Your task to perform on an android device: Open calendar and show me the third week of next month Image 0: 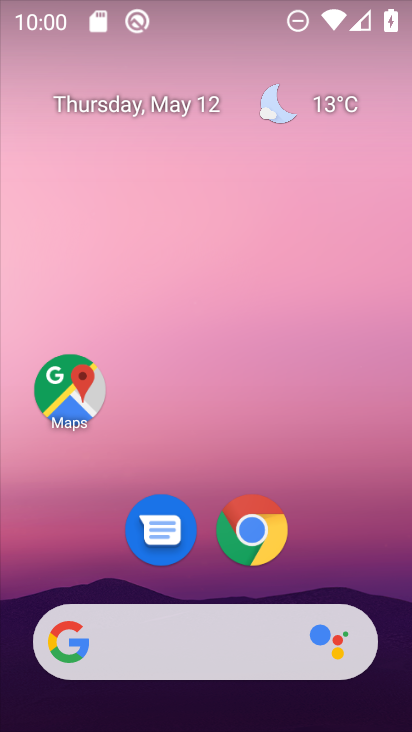
Step 0: drag from (326, 565) to (334, 315)
Your task to perform on an android device: Open calendar and show me the third week of next month Image 1: 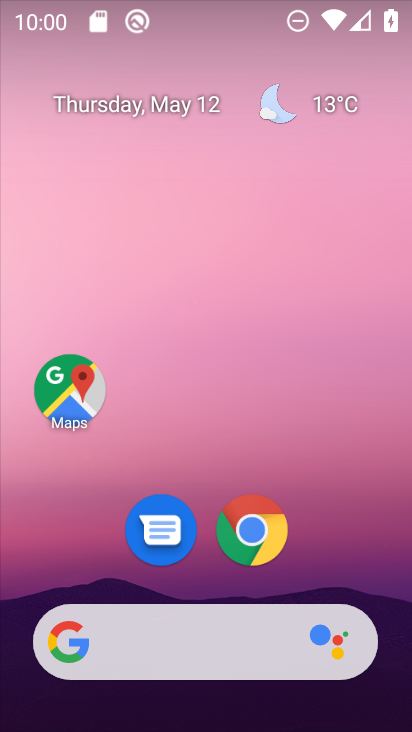
Step 1: drag from (374, 531) to (344, 128)
Your task to perform on an android device: Open calendar and show me the third week of next month Image 2: 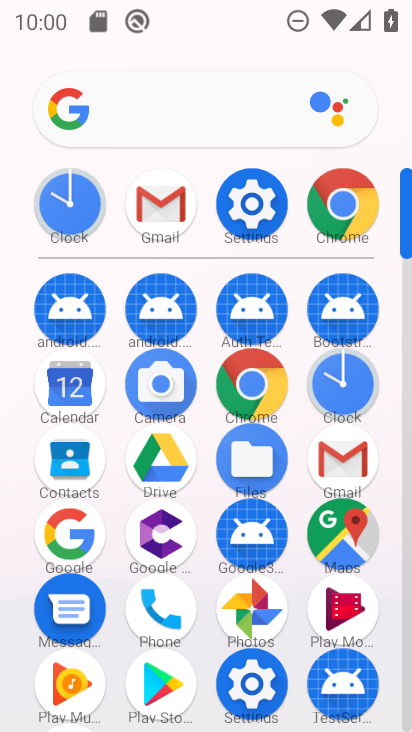
Step 2: click (64, 399)
Your task to perform on an android device: Open calendar and show me the third week of next month Image 3: 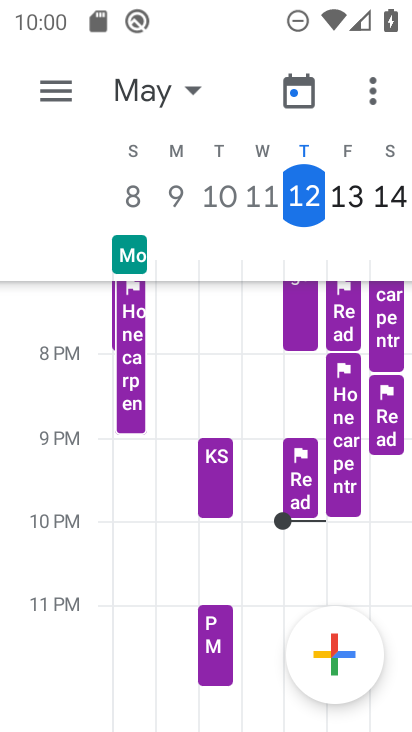
Step 3: click (59, 100)
Your task to perform on an android device: Open calendar and show me the third week of next month Image 4: 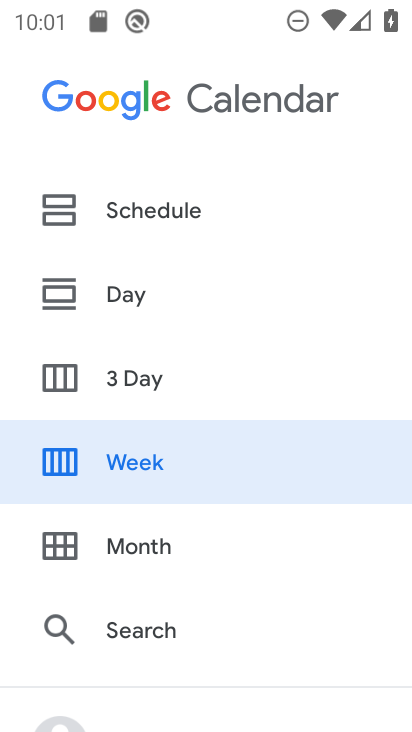
Step 4: click (151, 458)
Your task to perform on an android device: Open calendar and show me the third week of next month Image 5: 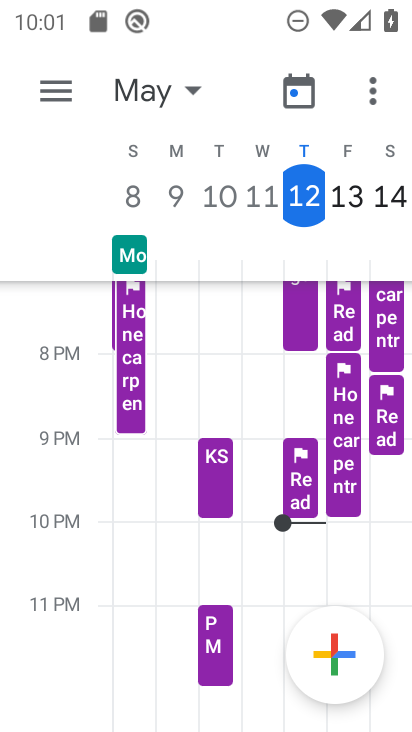
Step 5: drag from (382, 370) to (156, 361)
Your task to perform on an android device: Open calendar and show me the third week of next month Image 6: 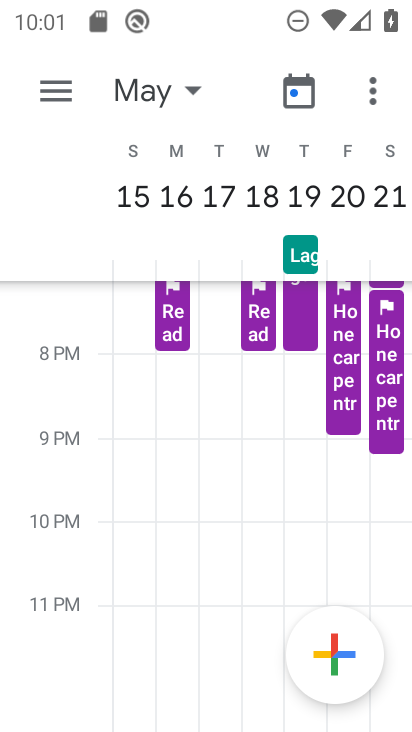
Step 6: drag from (318, 519) to (319, 178)
Your task to perform on an android device: Open calendar and show me the third week of next month Image 7: 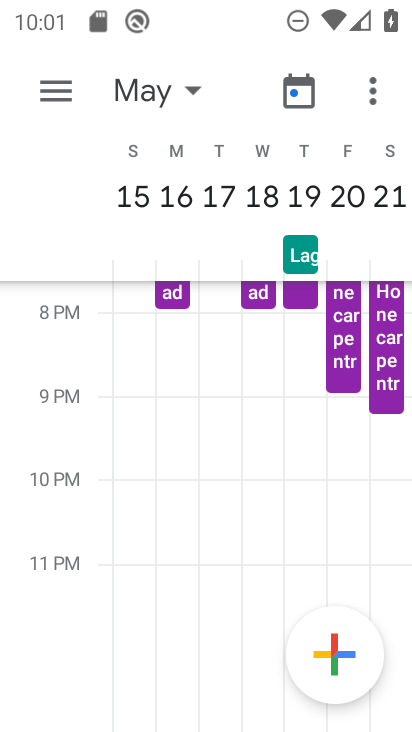
Step 7: drag from (256, 474) to (267, 186)
Your task to perform on an android device: Open calendar and show me the third week of next month Image 8: 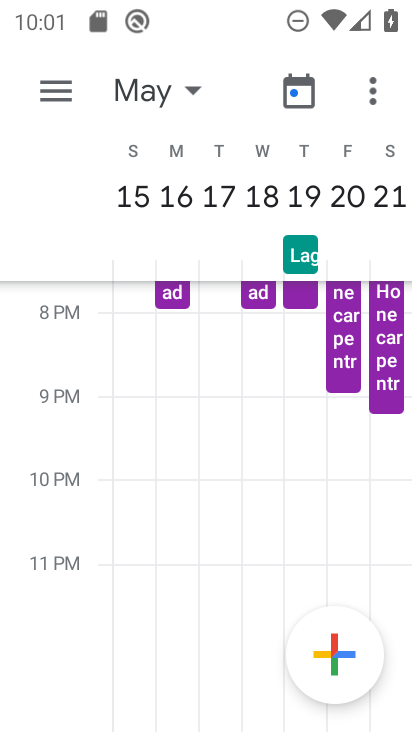
Step 8: click (132, 75)
Your task to perform on an android device: Open calendar and show me the third week of next month Image 9: 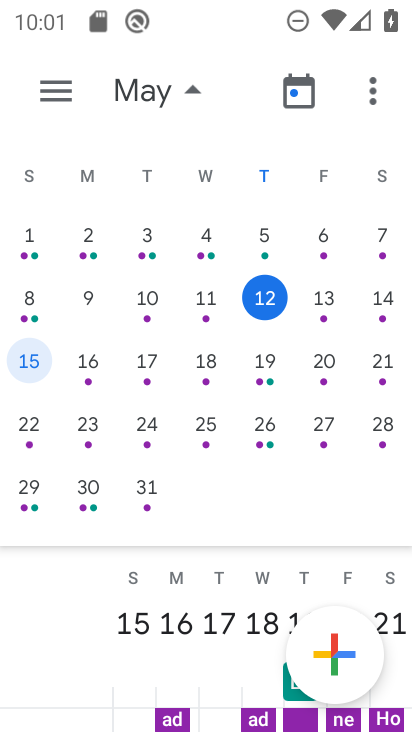
Step 9: task complete